Your task to perform on an android device: toggle notification dots Image 0: 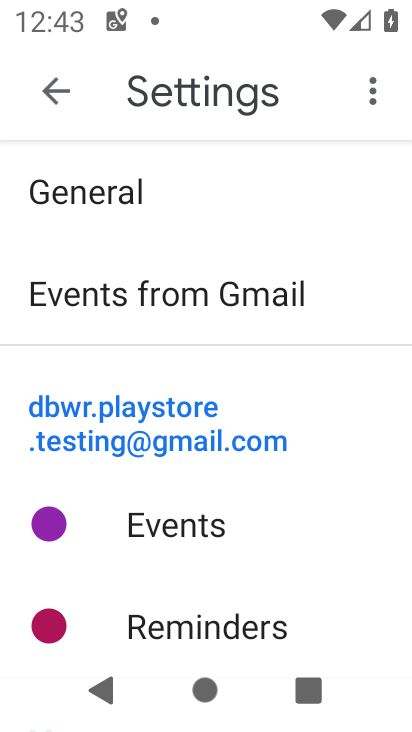
Step 0: press back button
Your task to perform on an android device: toggle notification dots Image 1: 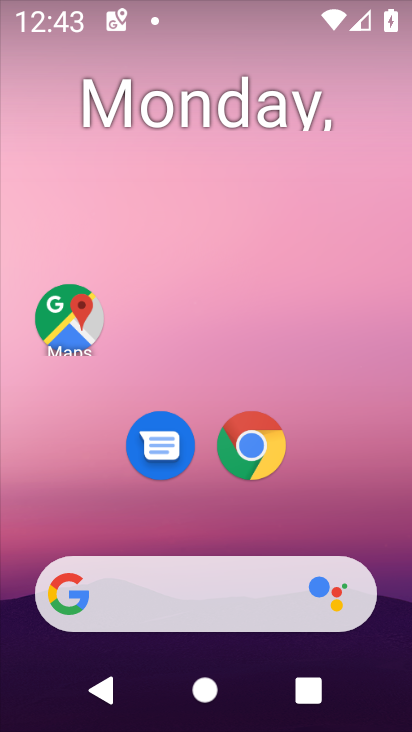
Step 1: drag from (330, 518) to (239, 79)
Your task to perform on an android device: toggle notification dots Image 2: 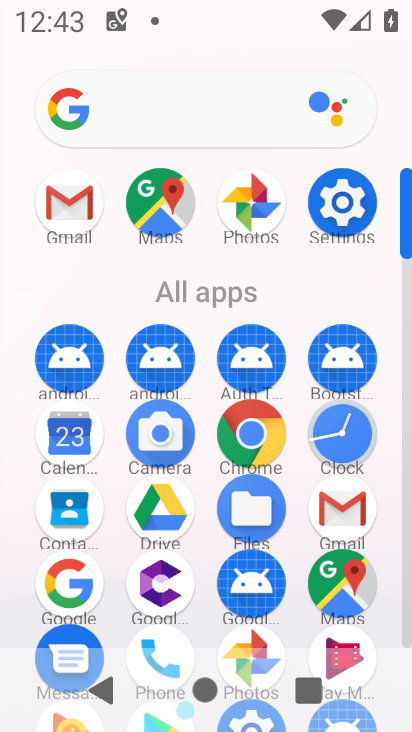
Step 2: click (342, 203)
Your task to perform on an android device: toggle notification dots Image 3: 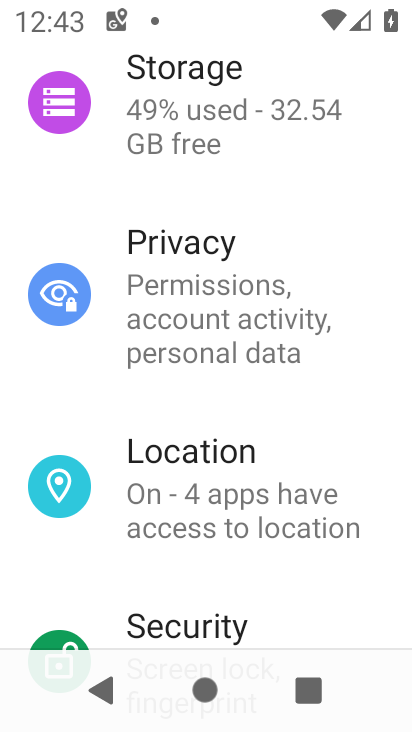
Step 3: drag from (238, 228) to (237, 339)
Your task to perform on an android device: toggle notification dots Image 4: 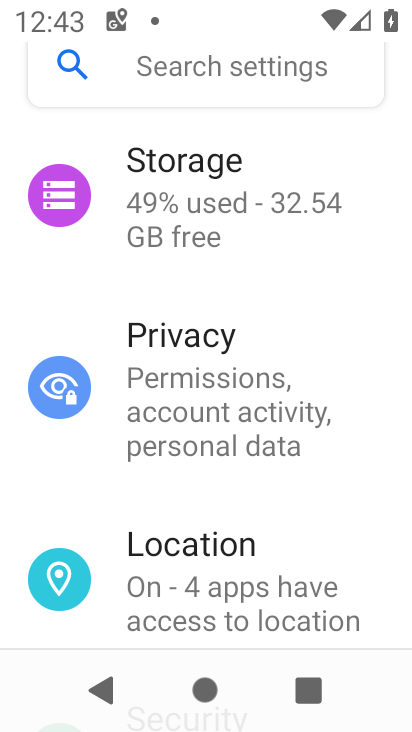
Step 4: drag from (211, 192) to (240, 406)
Your task to perform on an android device: toggle notification dots Image 5: 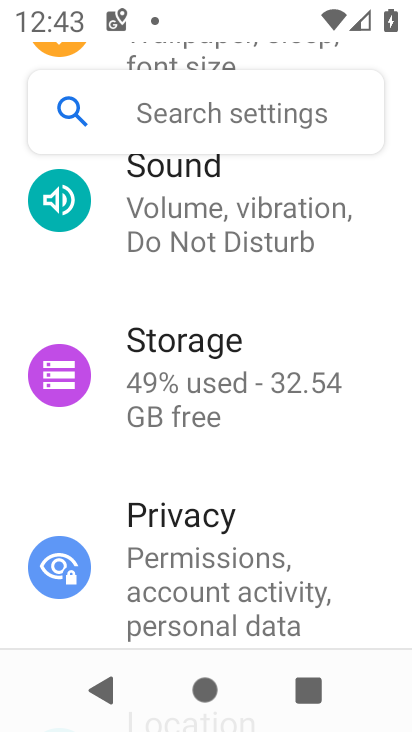
Step 5: drag from (220, 288) to (260, 461)
Your task to perform on an android device: toggle notification dots Image 6: 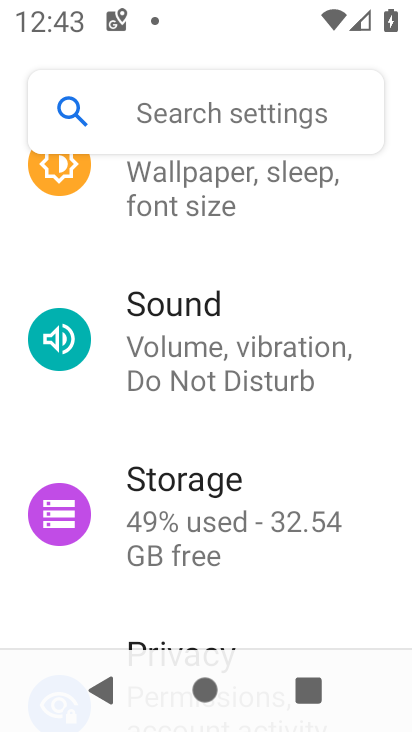
Step 6: drag from (246, 281) to (276, 472)
Your task to perform on an android device: toggle notification dots Image 7: 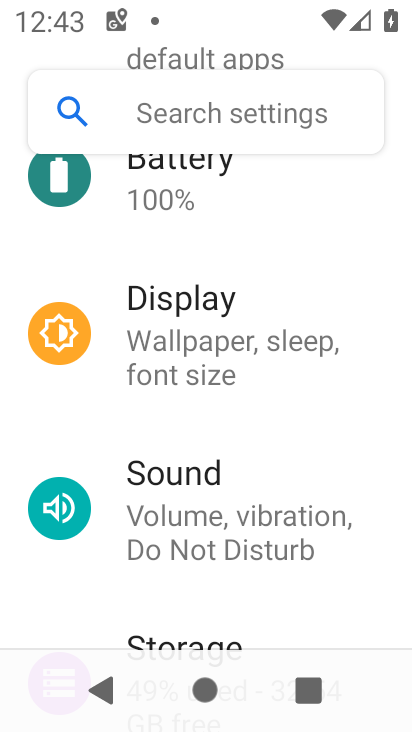
Step 7: drag from (240, 285) to (277, 418)
Your task to perform on an android device: toggle notification dots Image 8: 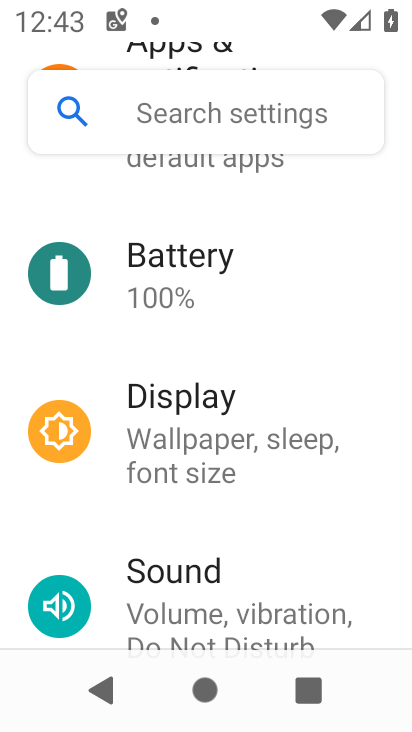
Step 8: drag from (274, 236) to (257, 419)
Your task to perform on an android device: toggle notification dots Image 9: 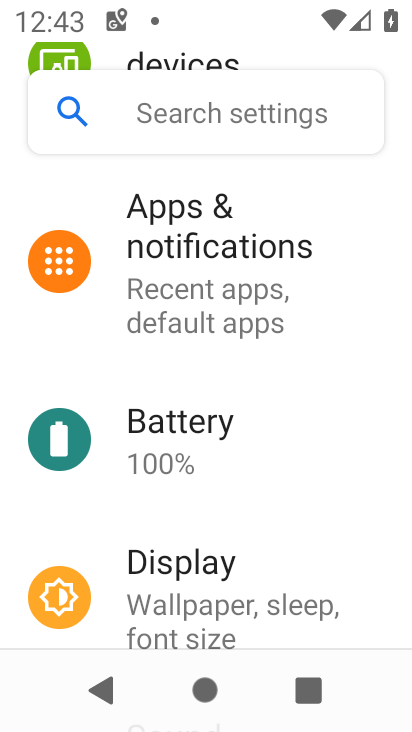
Step 9: click (216, 247)
Your task to perform on an android device: toggle notification dots Image 10: 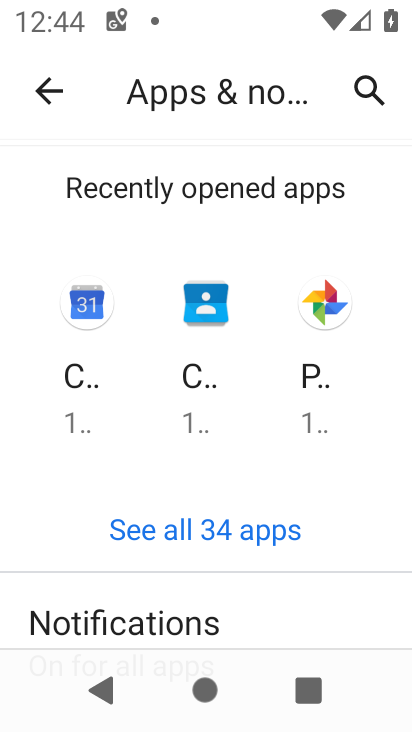
Step 10: drag from (155, 507) to (198, 339)
Your task to perform on an android device: toggle notification dots Image 11: 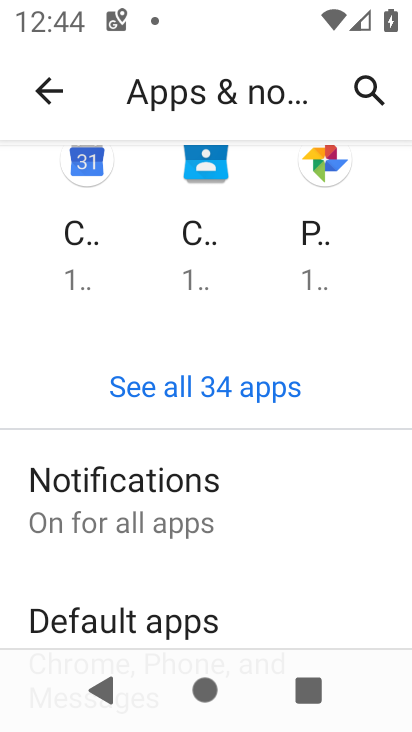
Step 11: click (119, 483)
Your task to perform on an android device: toggle notification dots Image 12: 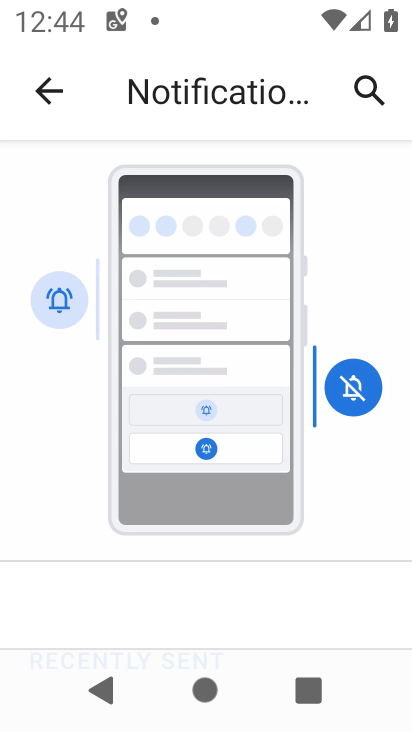
Step 12: drag from (166, 583) to (218, 428)
Your task to perform on an android device: toggle notification dots Image 13: 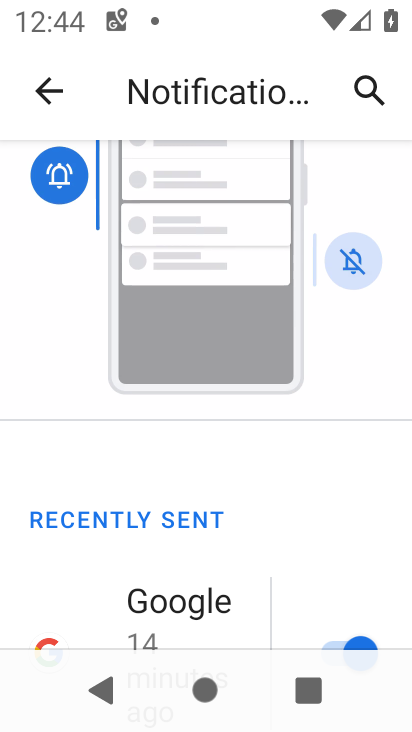
Step 13: drag from (196, 560) to (264, 436)
Your task to perform on an android device: toggle notification dots Image 14: 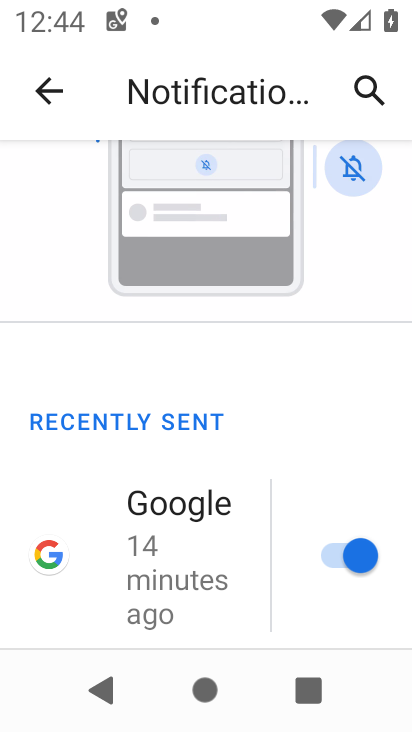
Step 14: drag from (194, 616) to (261, 443)
Your task to perform on an android device: toggle notification dots Image 15: 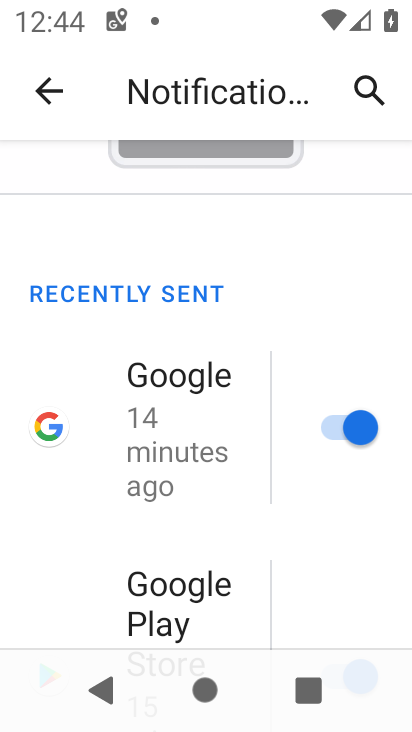
Step 15: drag from (175, 601) to (270, 439)
Your task to perform on an android device: toggle notification dots Image 16: 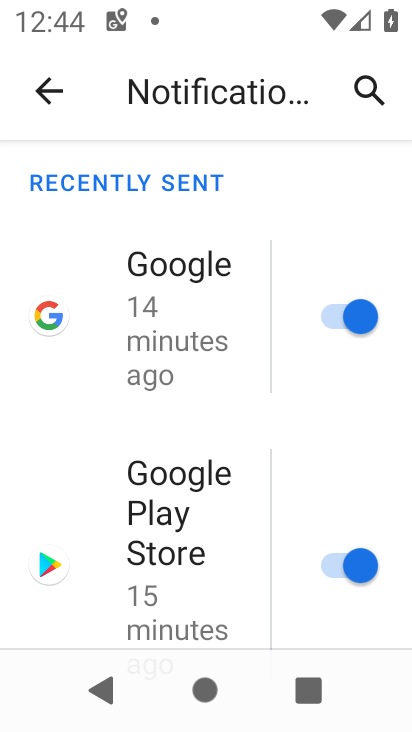
Step 16: drag from (180, 596) to (267, 389)
Your task to perform on an android device: toggle notification dots Image 17: 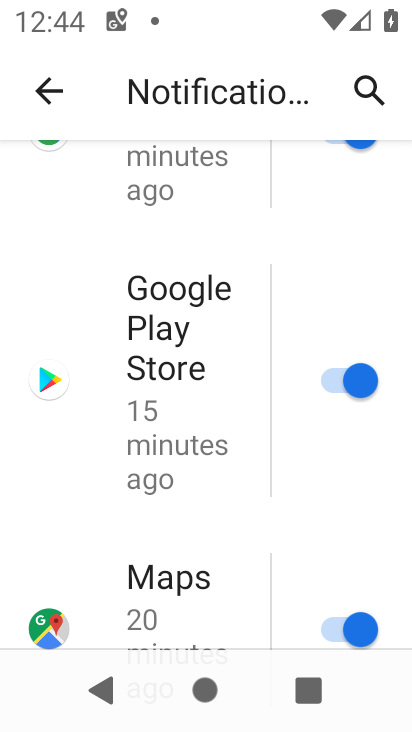
Step 17: drag from (195, 549) to (214, 362)
Your task to perform on an android device: toggle notification dots Image 18: 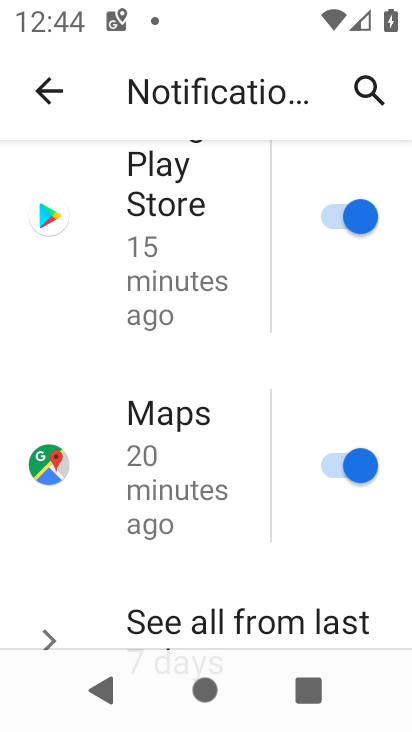
Step 18: drag from (138, 575) to (212, 451)
Your task to perform on an android device: toggle notification dots Image 19: 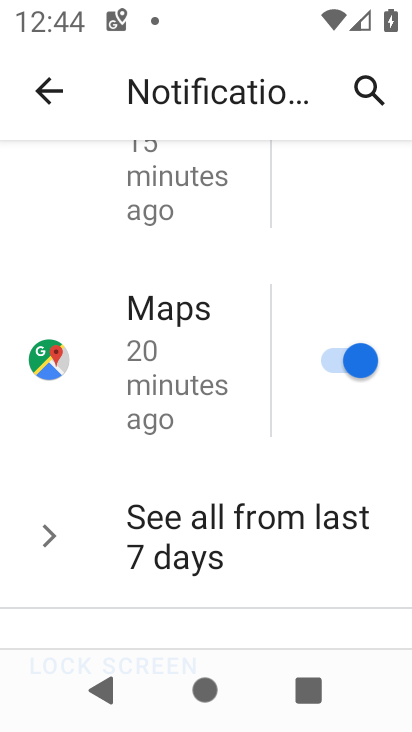
Step 19: drag from (149, 574) to (238, 428)
Your task to perform on an android device: toggle notification dots Image 20: 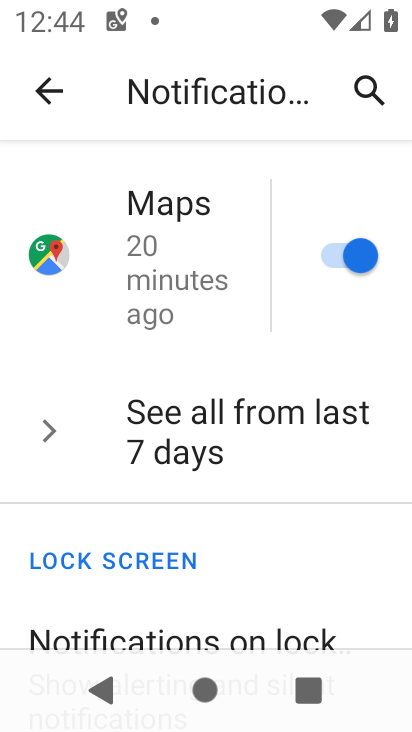
Step 20: drag from (143, 596) to (218, 479)
Your task to perform on an android device: toggle notification dots Image 21: 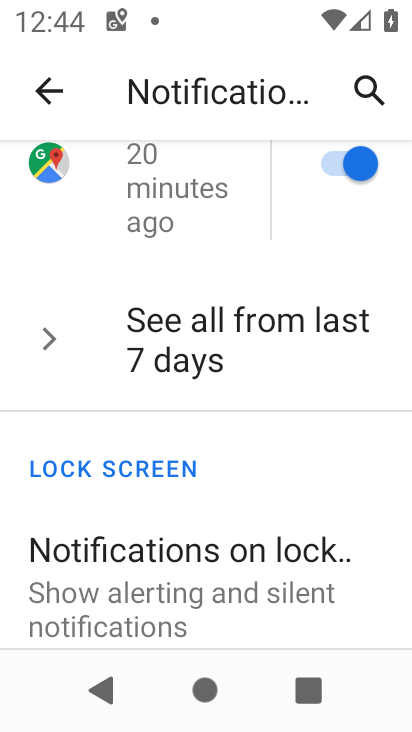
Step 21: drag from (151, 633) to (234, 467)
Your task to perform on an android device: toggle notification dots Image 22: 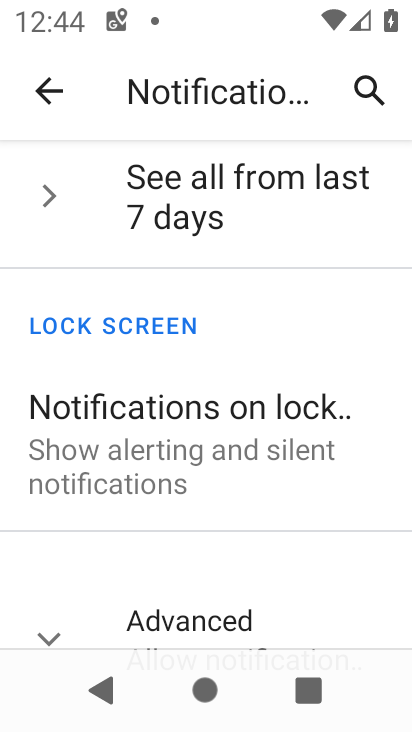
Step 22: click (231, 622)
Your task to perform on an android device: toggle notification dots Image 23: 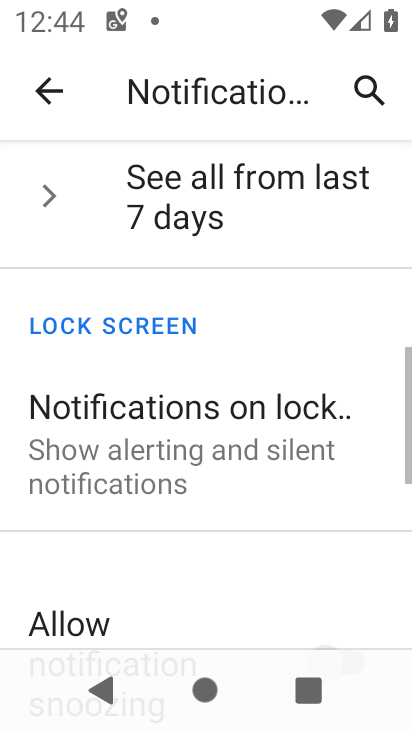
Step 23: drag from (227, 623) to (284, 398)
Your task to perform on an android device: toggle notification dots Image 24: 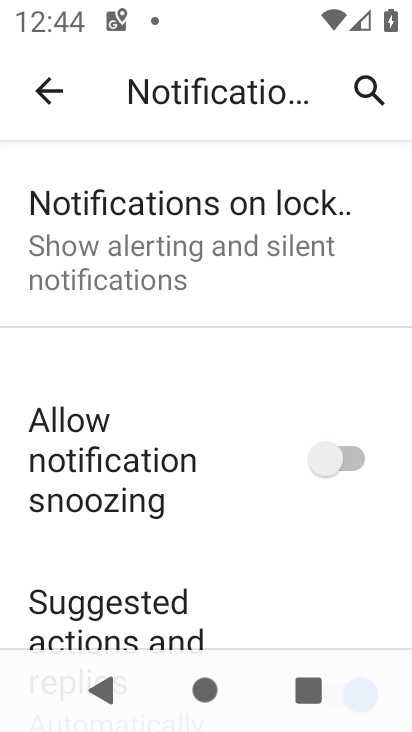
Step 24: drag from (215, 574) to (302, 420)
Your task to perform on an android device: toggle notification dots Image 25: 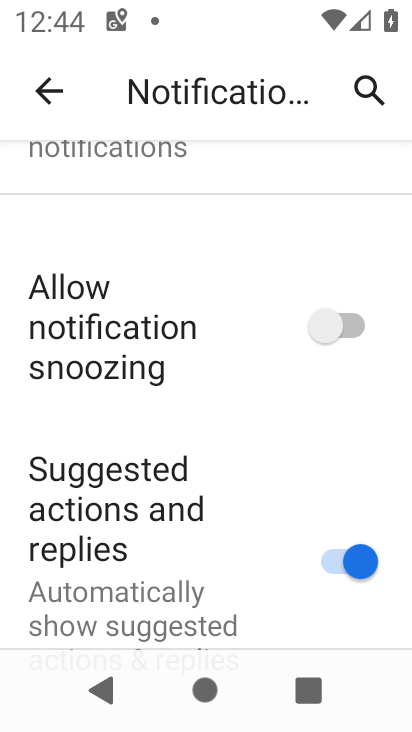
Step 25: drag from (286, 562) to (334, 382)
Your task to perform on an android device: toggle notification dots Image 26: 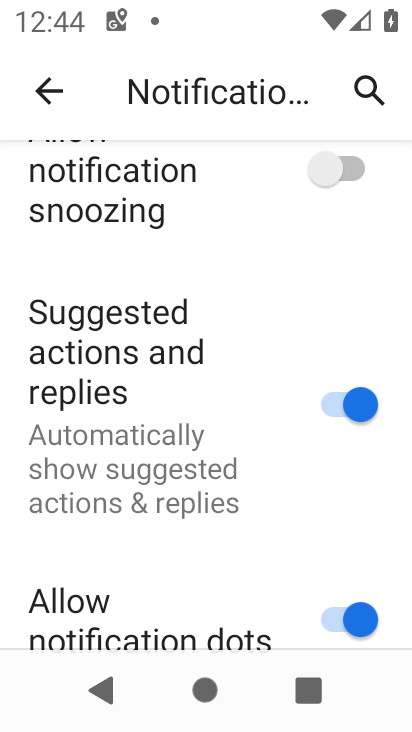
Step 26: drag from (282, 529) to (318, 444)
Your task to perform on an android device: toggle notification dots Image 27: 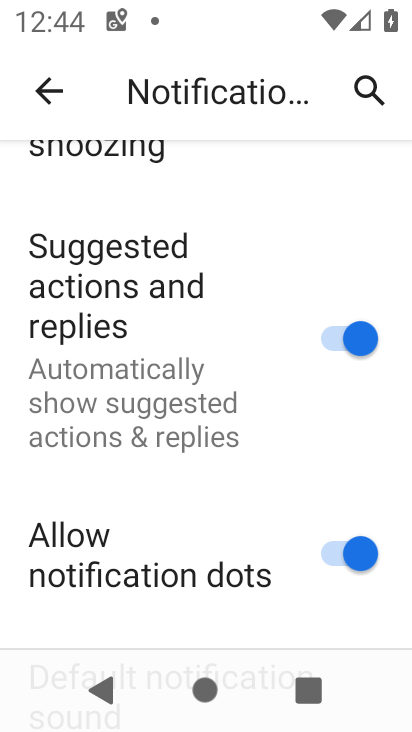
Step 27: click (369, 544)
Your task to perform on an android device: toggle notification dots Image 28: 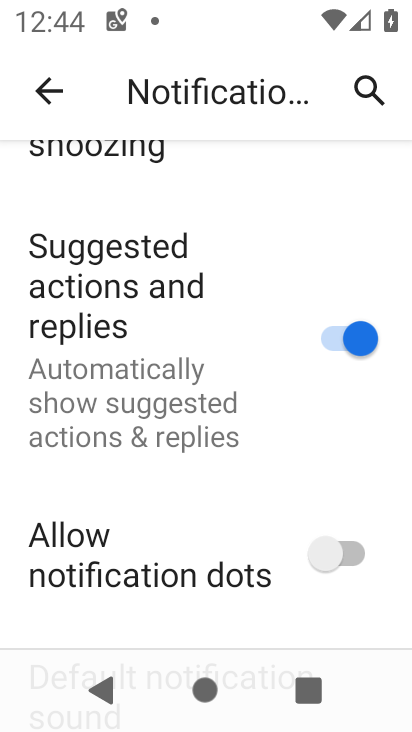
Step 28: task complete